Your task to perform on an android device: add a label to a message in the gmail app Image 0: 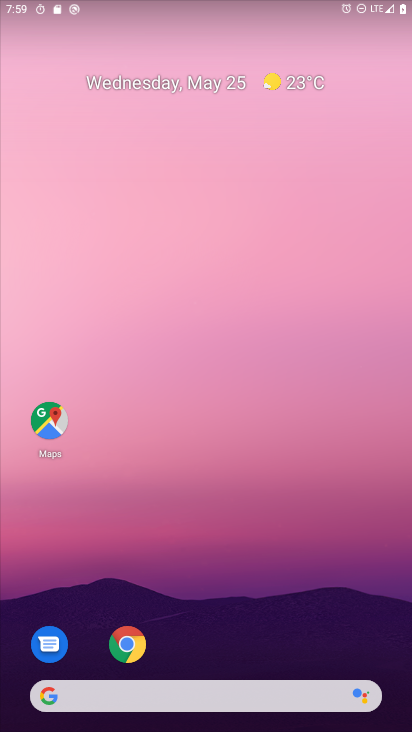
Step 0: drag from (333, 642) to (344, 49)
Your task to perform on an android device: add a label to a message in the gmail app Image 1: 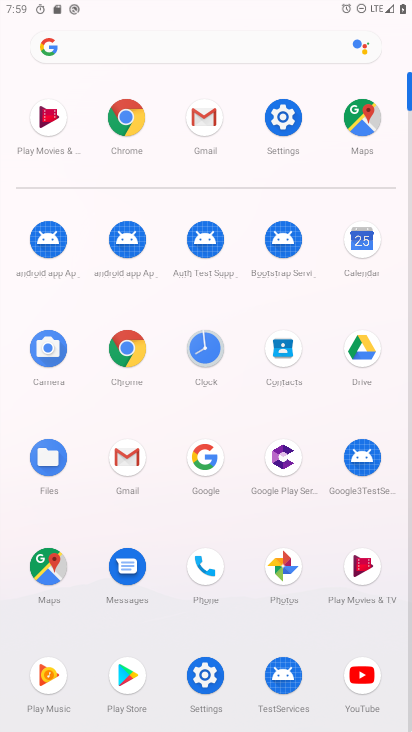
Step 1: click (111, 458)
Your task to perform on an android device: add a label to a message in the gmail app Image 2: 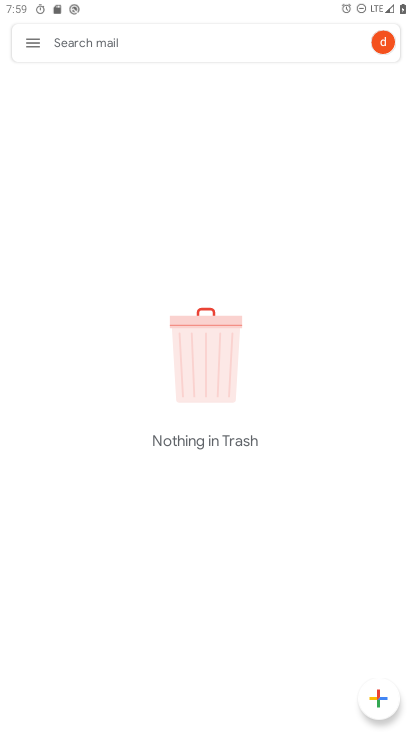
Step 2: click (29, 37)
Your task to perform on an android device: add a label to a message in the gmail app Image 3: 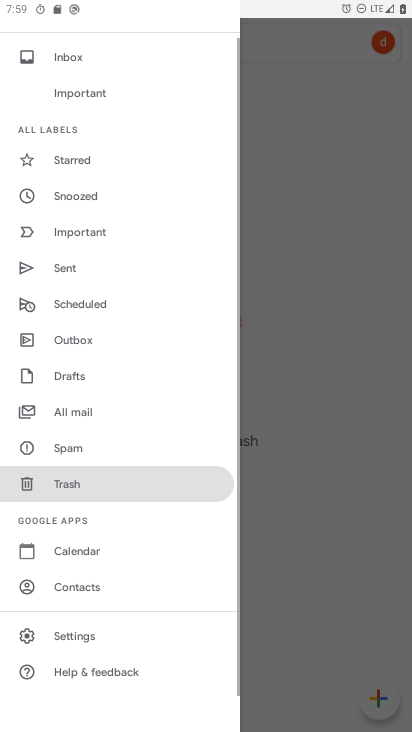
Step 3: drag from (100, 74) to (119, 571)
Your task to perform on an android device: add a label to a message in the gmail app Image 4: 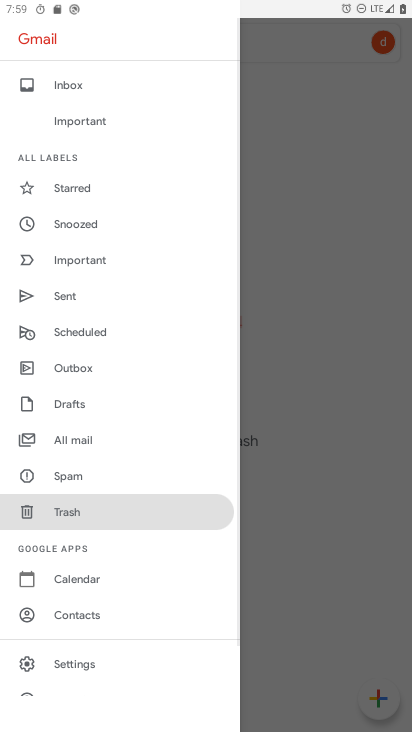
Step 4: click (59, 83)
Your task to perform on an android device: add a label to a message in the gmail app Image 5: 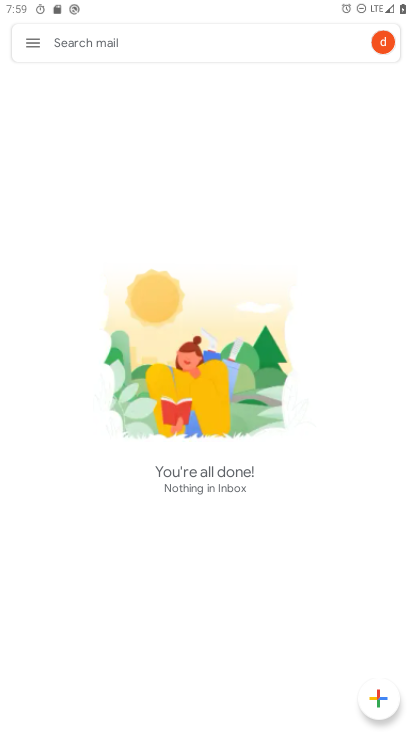
Step 5: task complete